Your task to perform on an android device: turn notification dots off Image 0: 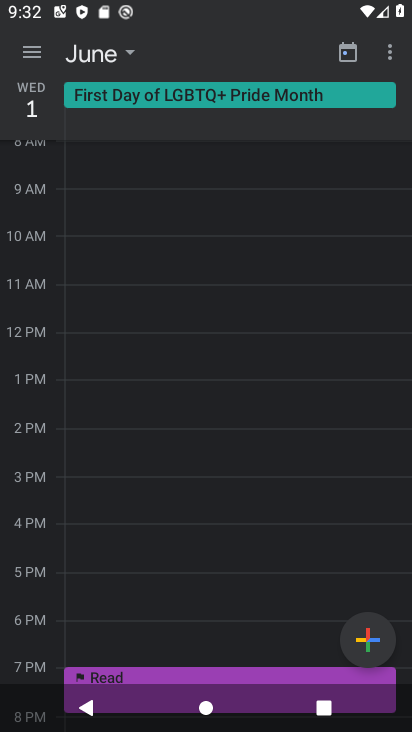
Step 0: press home button
Your task to perform on an android device: turn notification dots off Image 1: 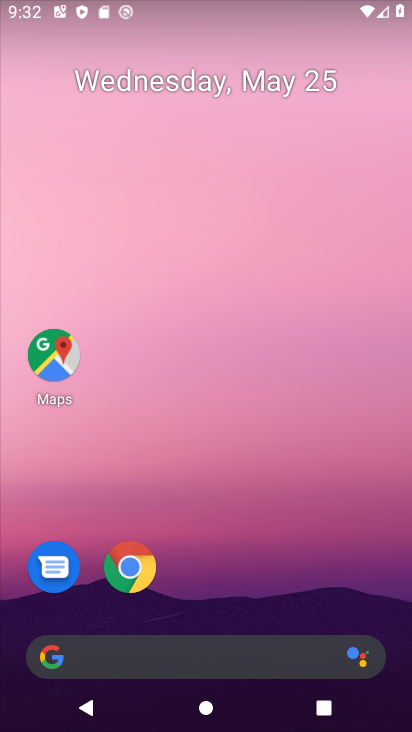
Step 1: drag from (267, 571) to (212, 315)
Your task to perform on an android device: turn notification dots off Image 2: 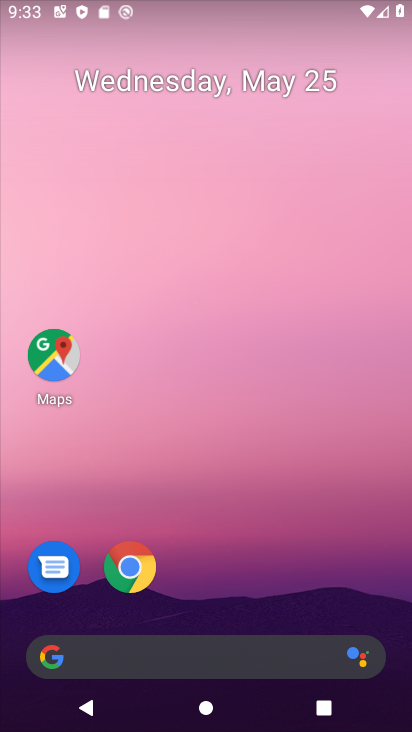
Step 2: drag from (297, 591) to (286, 173)
Your task to perform on an android device: turn notification dots off Image 3: 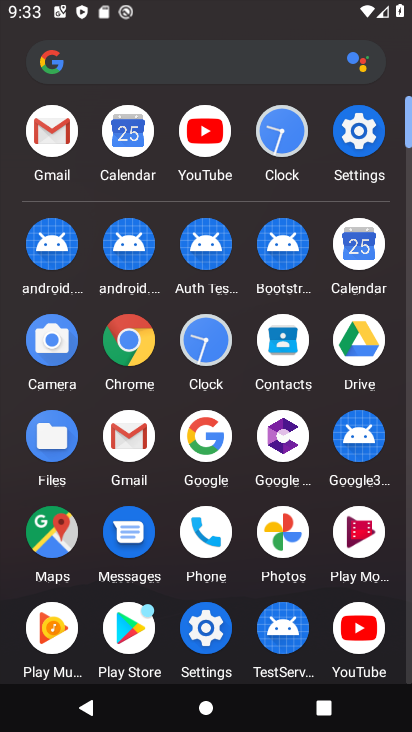
Step 3: click (346, 179)
Your task to perform on an android device: turn notification dots off Image 4: 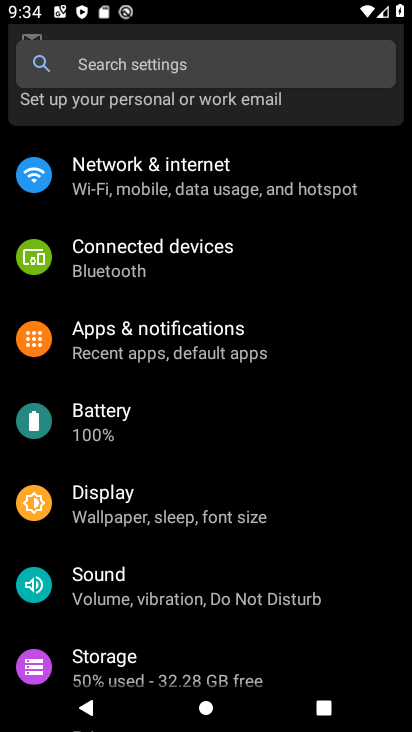
Step 4: task complete